Your task to perform on an android device: Do I have any events today? Image 0: 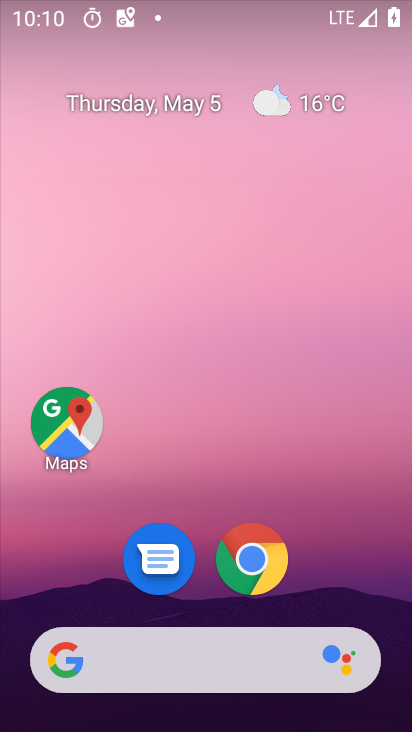
Step 0: drag from (191, 589) to (265, 1)
Your task to perform on an android device: Do I have any events today? Image 1: 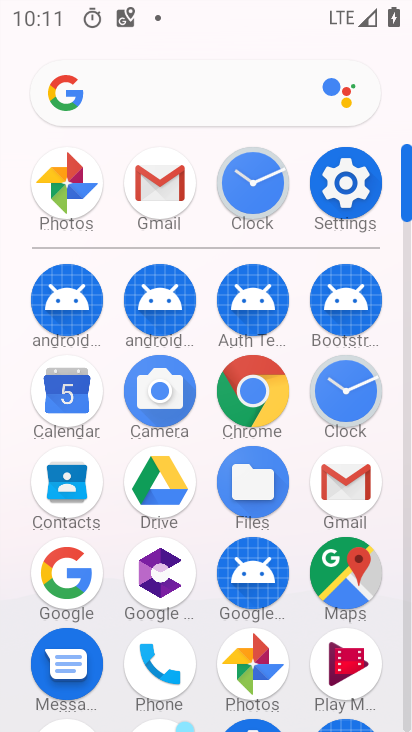
Step 1: click (71, 409)
Your task to perform on an android device: Do I have any events today? Image 2: 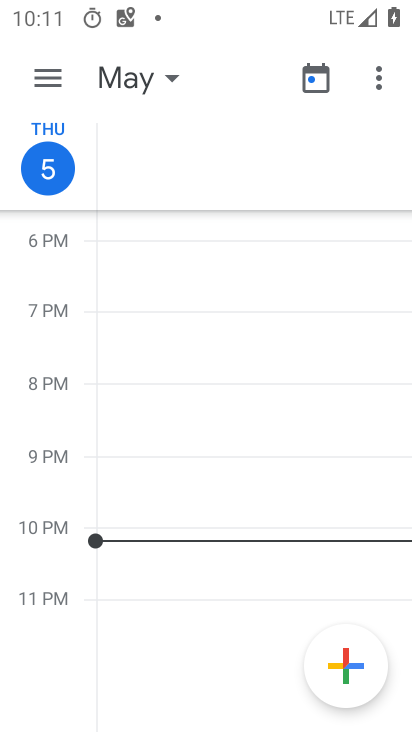
Step 2: click (57, 88)
Your task to perform on an android device: Do I have any events today? Image 3: 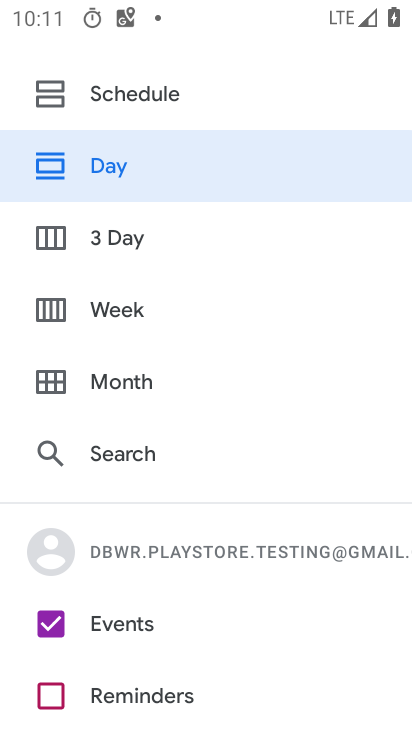
Step 3: click (128, 244)
Your task to perform on an android device: Do I have any events today? Image 4: 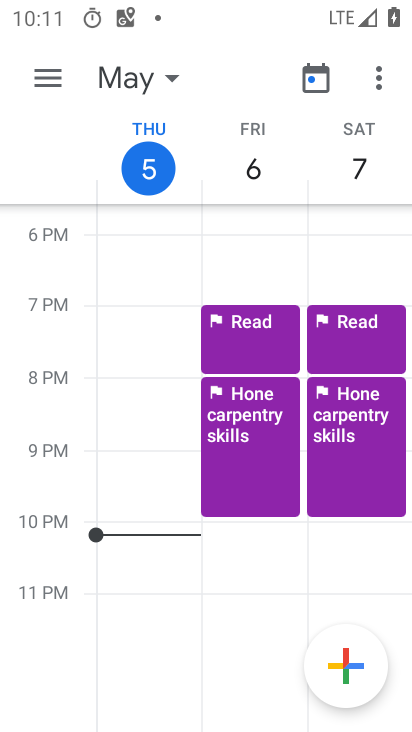
Step 4: task complete